Your task to perform on an android device: snooze an email in the gmail app Image 0: 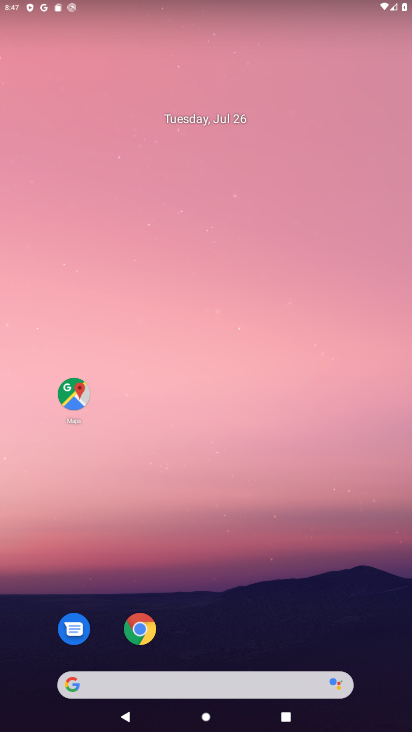
Step 0: press home button
Your task to perform on an android device: snooze an email in the gmail app Image 1: 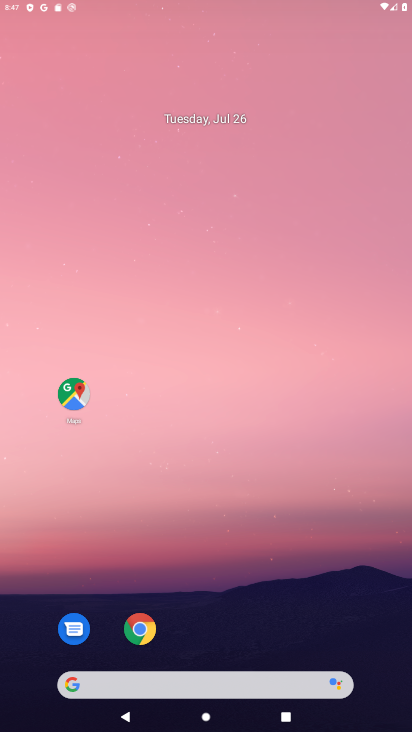
Step 1: drag from (274, 613) to (317, 90)
Your task to perform on an android device: snooze an email in the gmail app Image 2: 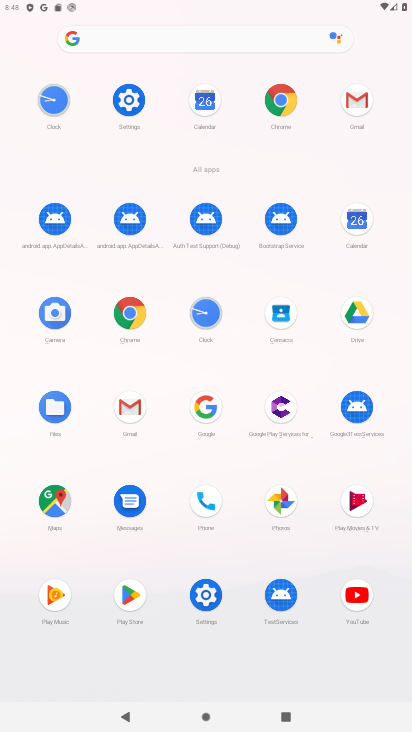
Step 2: click (120, 410)
Your task to perform on an android device: snooze an email in the gmail app Image 3: 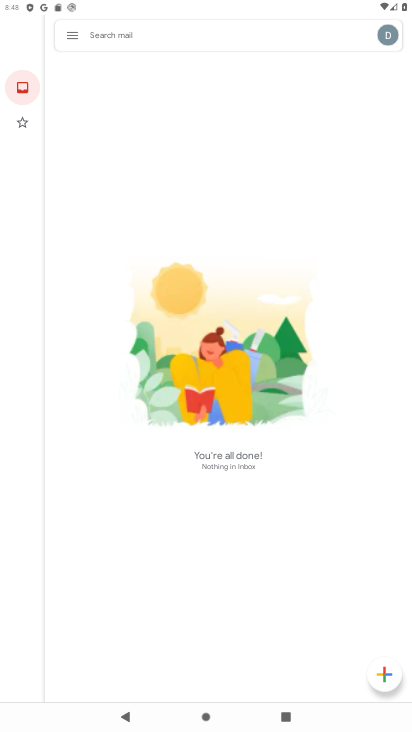
Step 3: task complete